Your task to perform on an android device: turn on javascript in the chrome app Image 0: 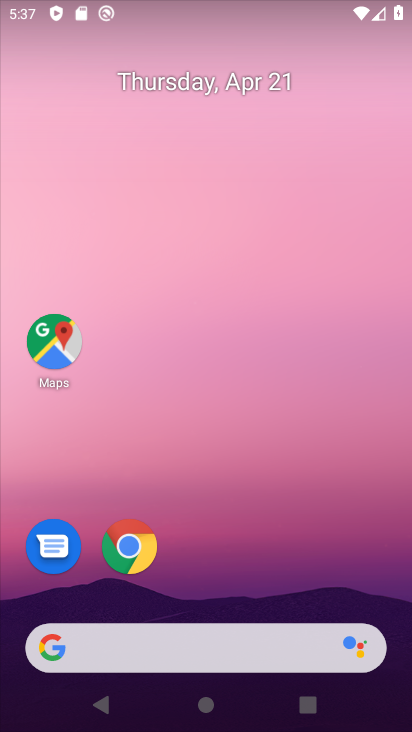
Step 0: click (136, 548)
Your task to perform on an android device: turn on javascript in the chrome app Image 1: 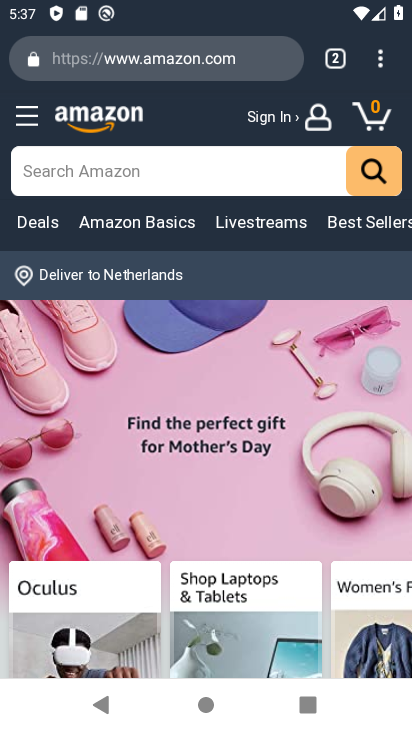
Step 1: click (135, 548)
Your task to perform on an android device: turn on javascript in the chrome app Image 2: 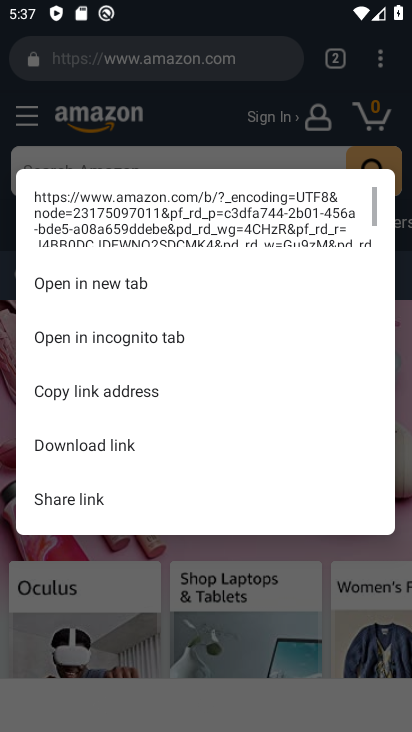
Step 2: click (388, 60)
Your task to perform on an android device: turn on javascript in the chrome app Image 3: 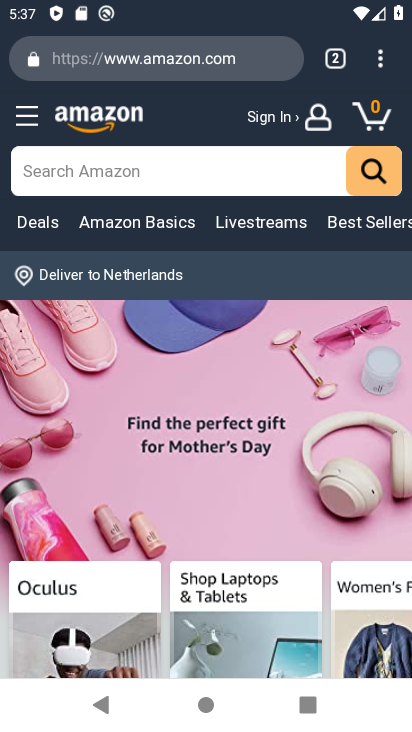
Step 3: click (385, 56)
Your task to perform on an android device: turn on javascript in the chrome app Image 4: 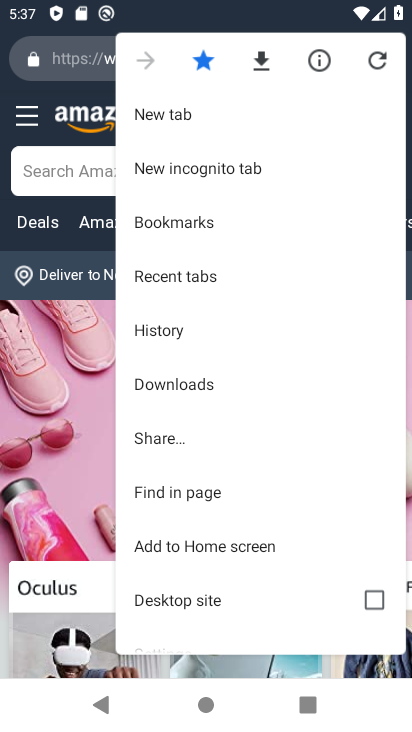
Step 4: drag from (232, 466) to (179, 7)
Your task to perform on an android device: turn on javascript in the chrome app Image 5: 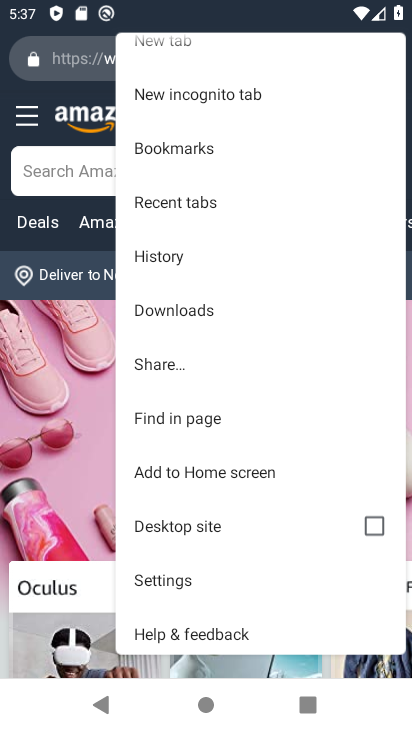
Step 5: click (202, 584)
Your task to perform on an android device: turn on javascript in the chrome app Image 6: 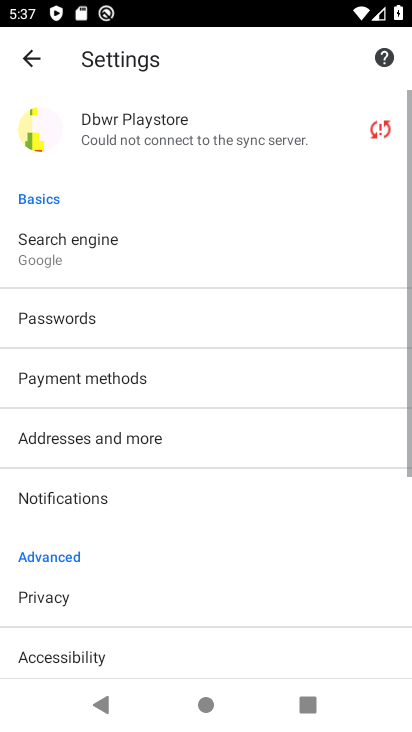
Step 6: drag from (176, 302) to (148, 70)
Your task to perform on an android device: turn on javascript in the chrome app Image 7: 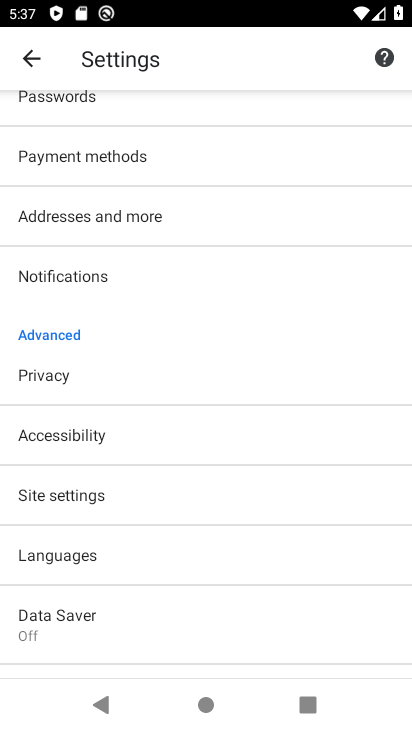
Step 7: click (106, 502)
Your task to perform on an android device: turn on javascript in the chrome app Image 8: 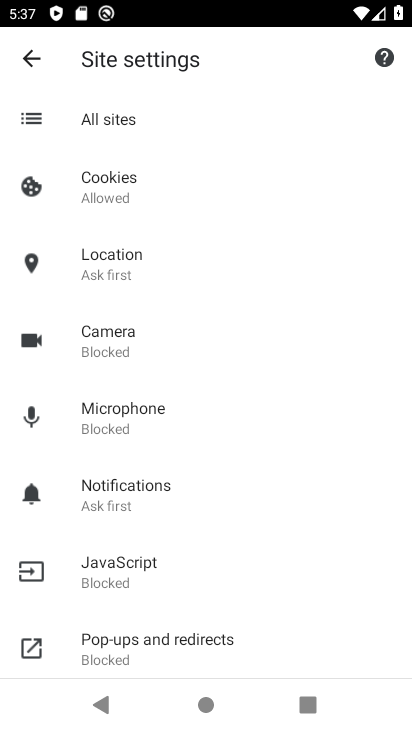
Step 8: drag from (187, 547) to (142, 151)
Your task to perform on an android device: turn on javascript in the chrome app Image 9: 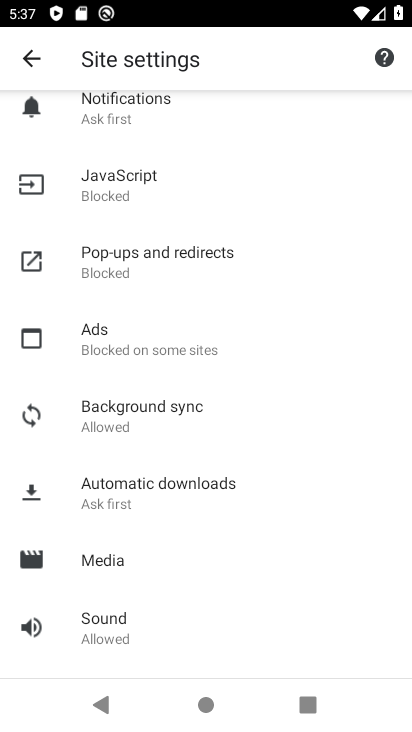
Step 9: click (198, 682)
Your task to perform on an android device: turn on javascript in the chrome app Image 10: 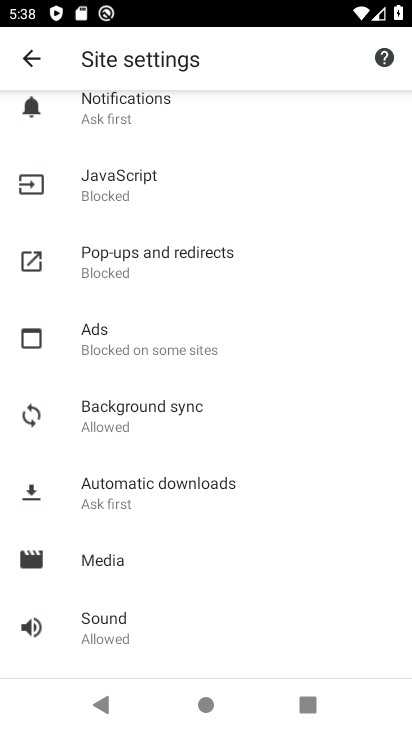
Step 10: click (112, 190)
Your task to perform on an android device: turn on javascript in the chrome app Image 11: 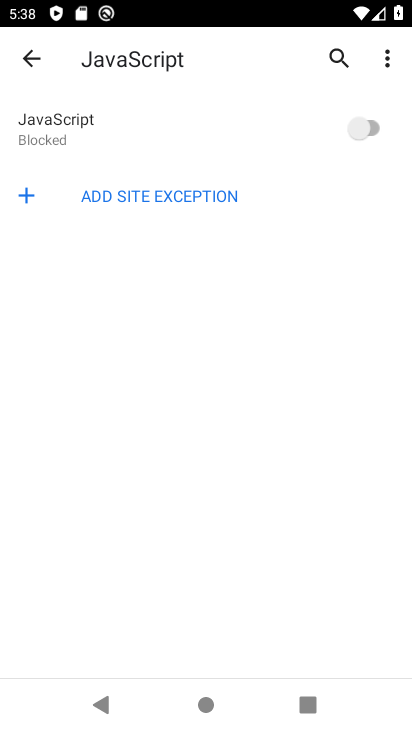
Step 11: click (112, 190)
Your task to perform on an android device: turn on javascript in the chrome app Image 12: 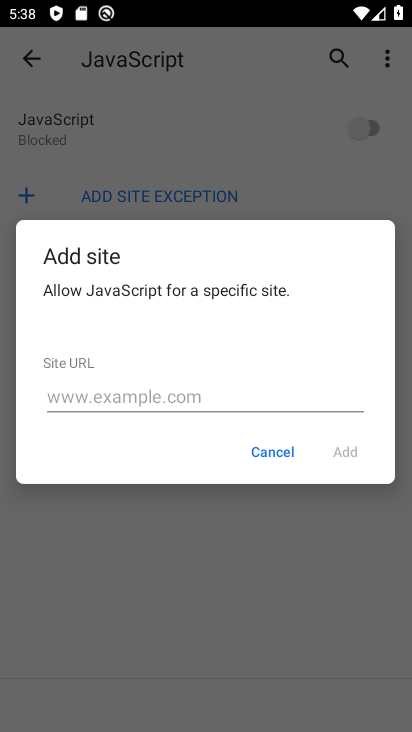
Step 12: click (308, 132)
Your task to perform on an android device: turn on javascript in the chrome app Image 13: 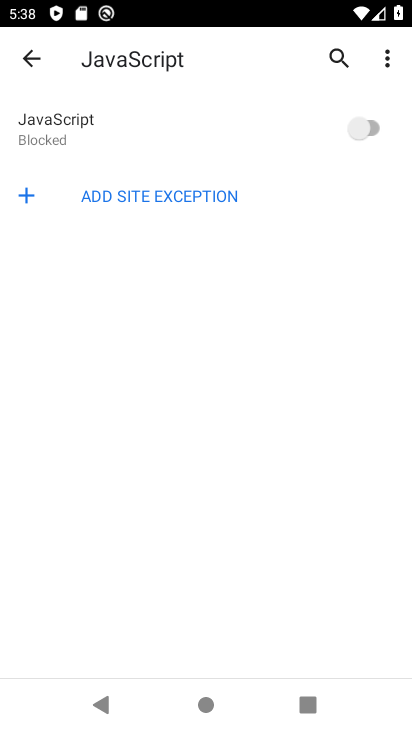
Step 13: click (274, 457)
Your task to perform on an android device: turn on javascript in the chrome app Image 14: 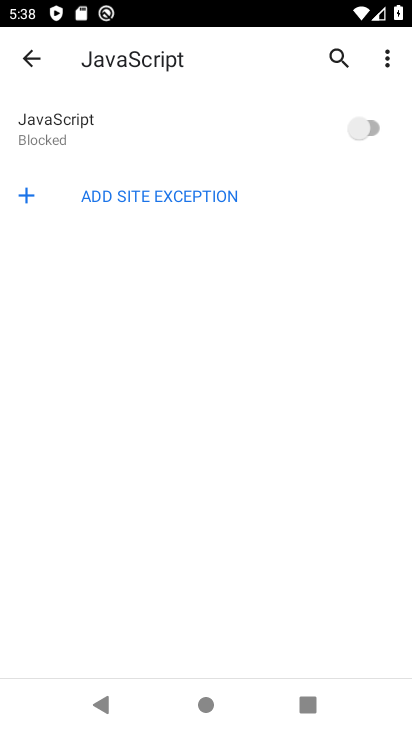
Step 14: click (382, 120)
Your task to perform on an android device: turn on javascript in the chrome app Image 15: 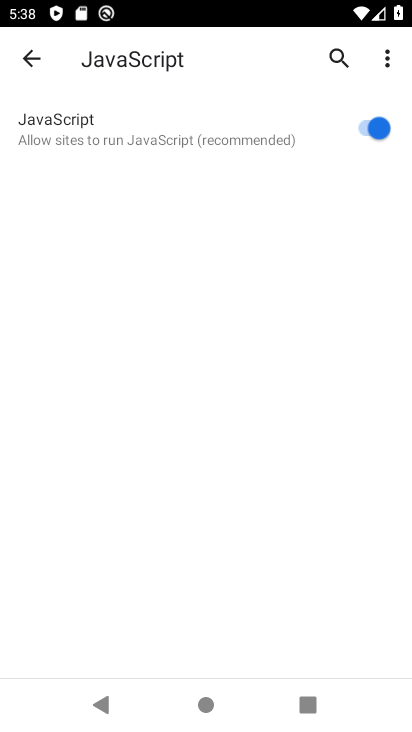
Step 15: task complete